Your task to perform on an android device: Open calendar and show me the first week of next month Image 0: 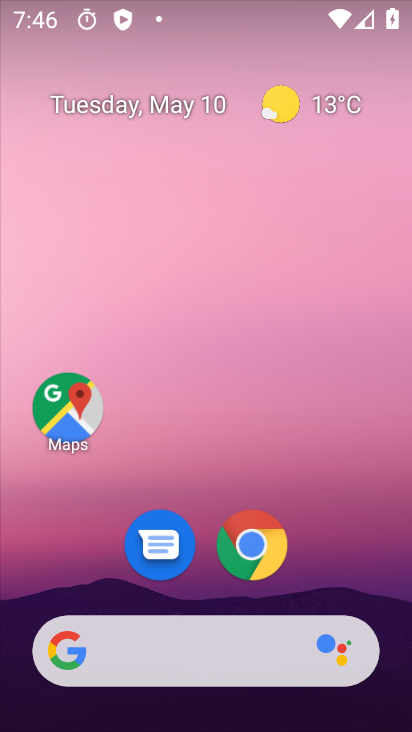
Step 0: press home button
Your task to perform on an android device: Open calendar and show me the first week of next month Image 1: 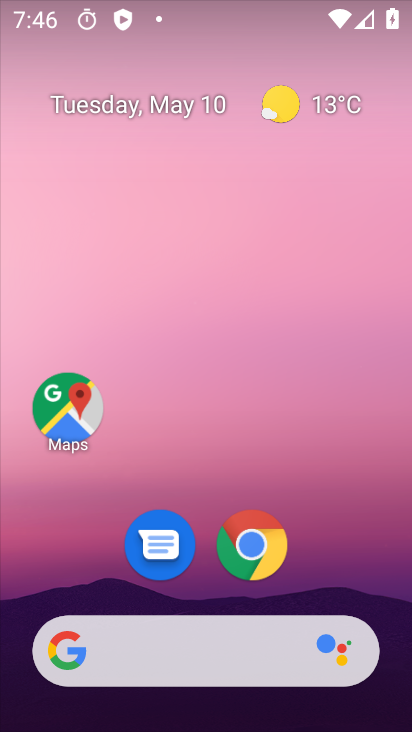
Step 1: drag from (211, 592) to (261, 79)
Your task to perform on an android device: Open calendar and show me the first week of next month Image 2: 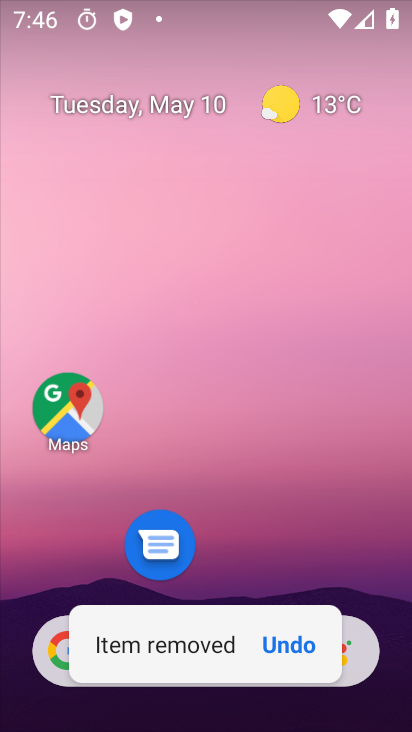
Step 2: click (285, 645)
Your task to perform on an android device: Open calendar and show me the first week of next month Image 3: 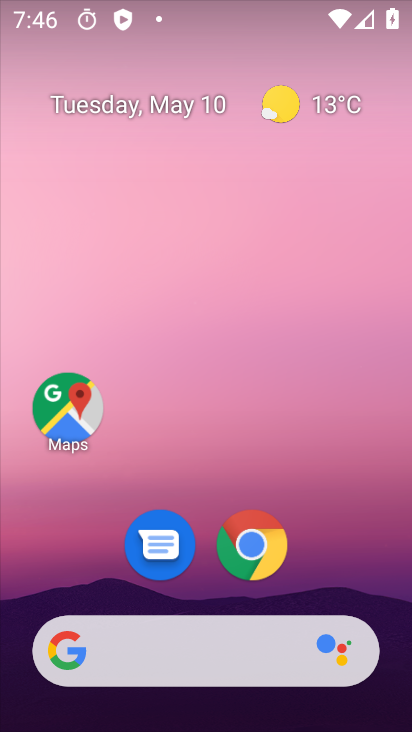
Step 3: drag from (320, 580) to (338, 78)
Your task to perform on an android device: Open calendar and show me the first week of next month Image 4: 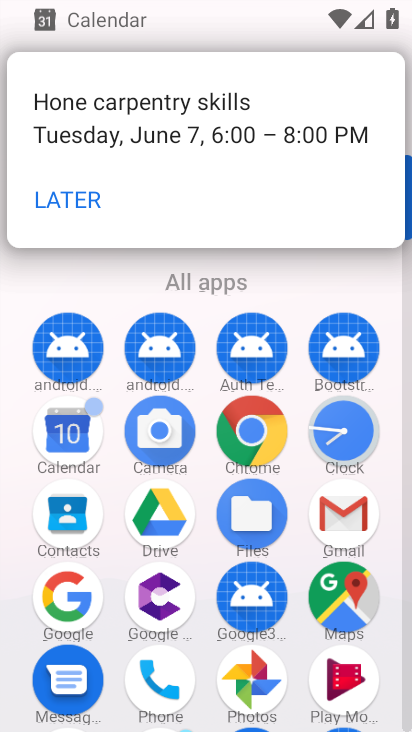
Step 4: click (81, 183)
Your task to perform on an android device: Open calendar and show me the first week of next month Image 5: 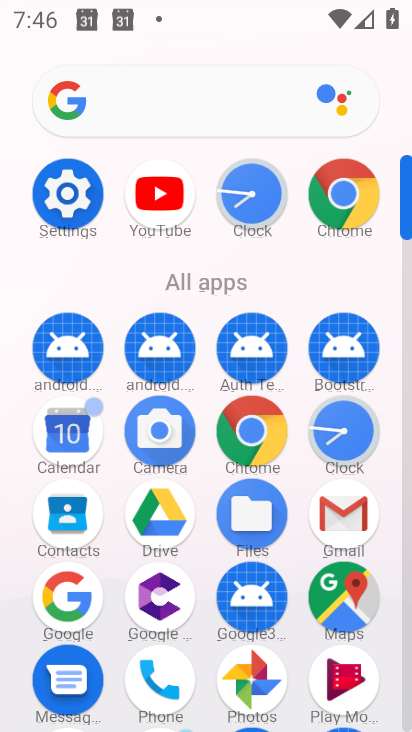
Step 5: click (67, 433)
Your task to perform on an android device: Open calendar and show me the first week of next month Image 6: 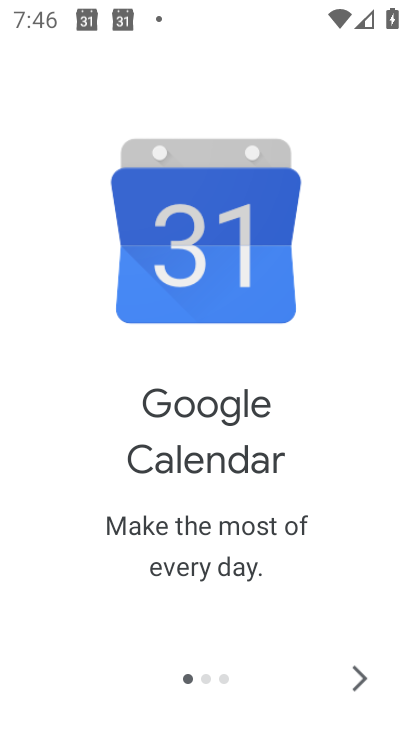
Step 6: click (352, 670)
Your task to perform on an android device: Open calendar and show me the first week of next month Image 7: 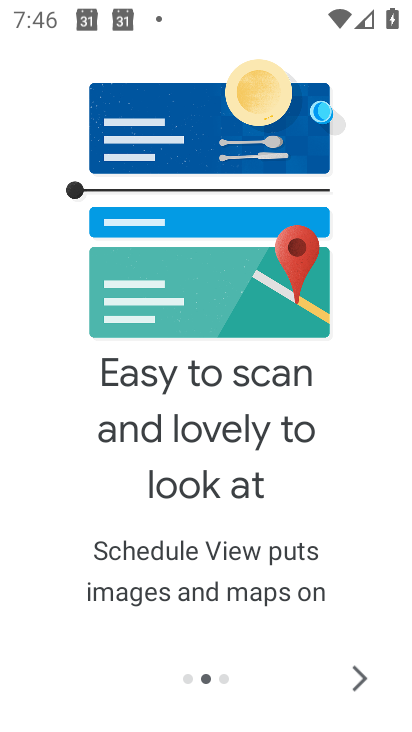
Step 7: click (352, 670)
Your task to perform on an android device: Open calendar and show me the first week of next month Image 8: 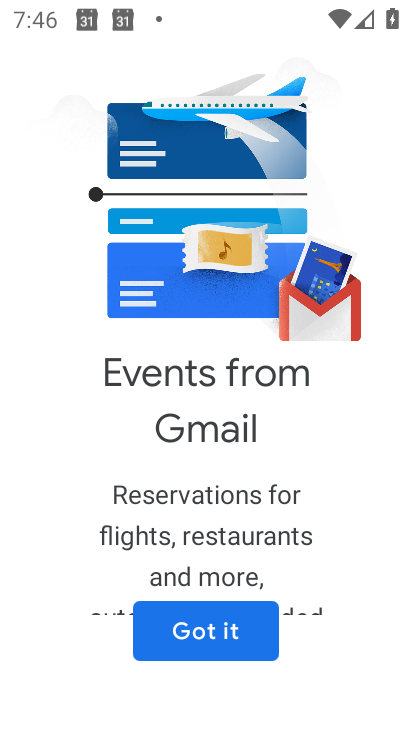
Step 8: click (215, 636)
Your task to perform on an android device: Open calendar and show me the first week of next month Image 9: 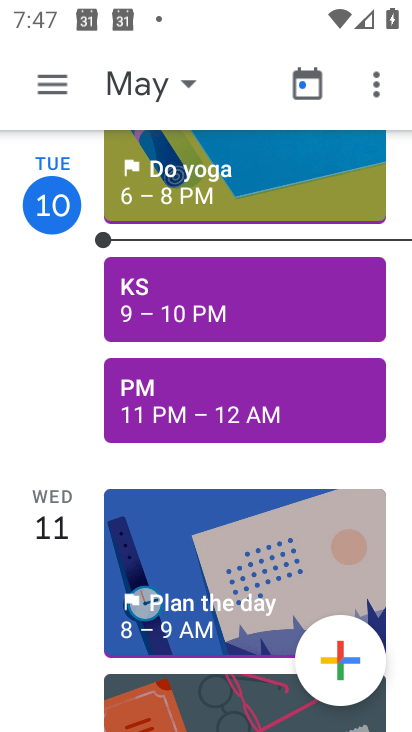
Step 9: click (58, 80)
Your task to perform on an android device: Open calendar and show me the first week of next month Image 10: 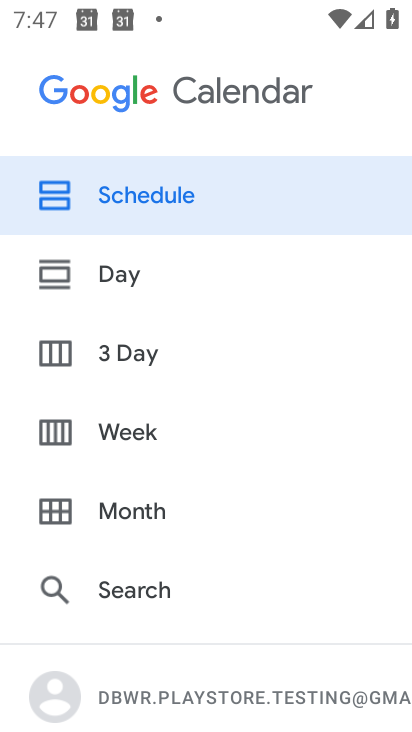
Step 10: click (105, 429)
Your task to perform on an android device: Open calendar and show me the first week of next month Image 11: 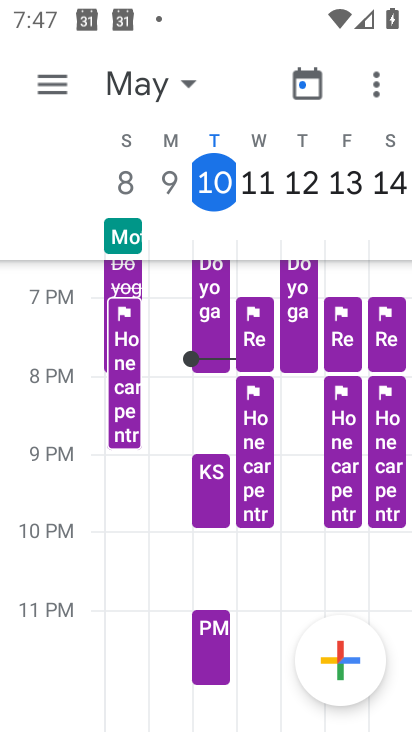
Step 11: drag from (379, 173) to (83, 165)
Your task to perform on an android device: Open calendar and show me the first week of next month Image 12: 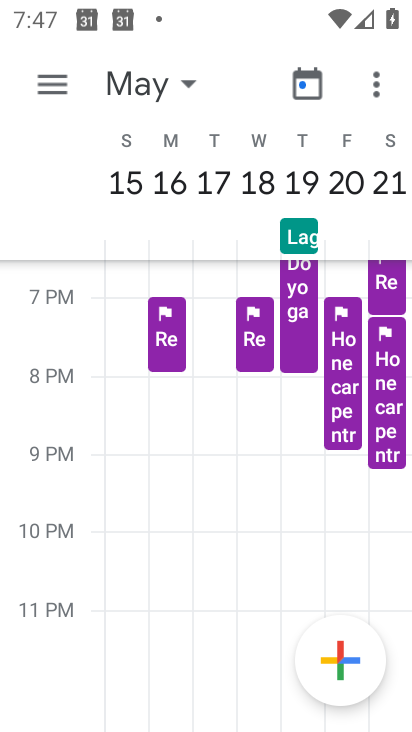
Step 12: drag from (394, 172) to (160, 181)
Your task to perform on an android device: Open calendar and show me the first week of next month Image 13: 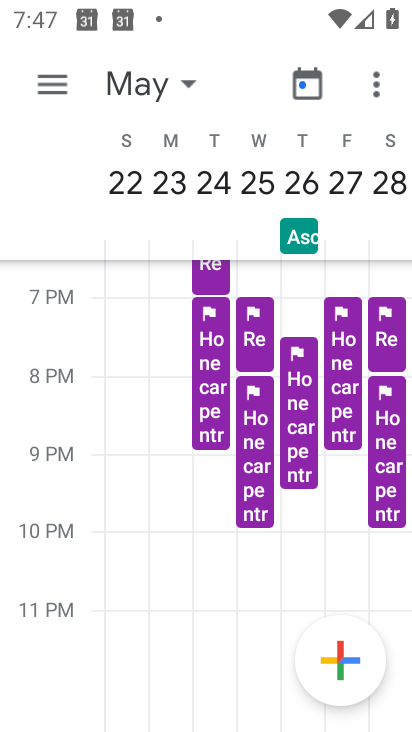
Step 13: drag from (384, 173) to (142, 182)
Your task to perform on an android device: Open calendar and show me the first week of next month Image 14: 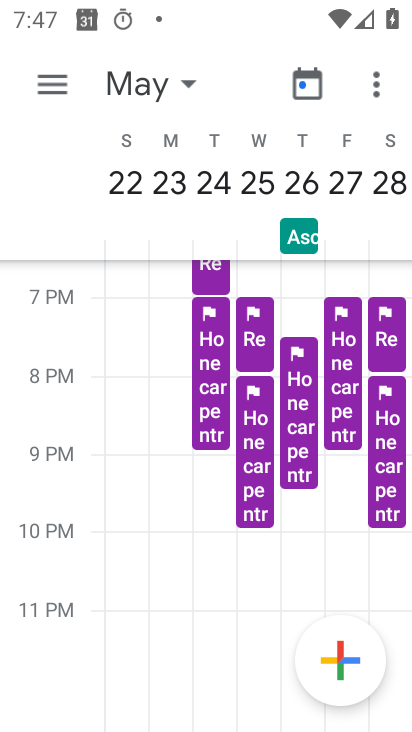
Step 14: drag from (387, 175) to (134, 165)
Your task to perform on an android device: Open calendar and show me the first week of next month Image 15: 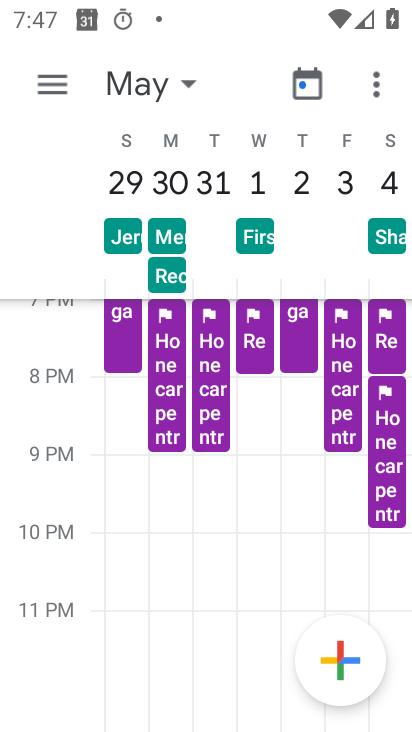
Step 15: drag from (372, 180) to (140, 164)
Your task to perform on an android device: Open calendar and show me the first week of next month Image 16: 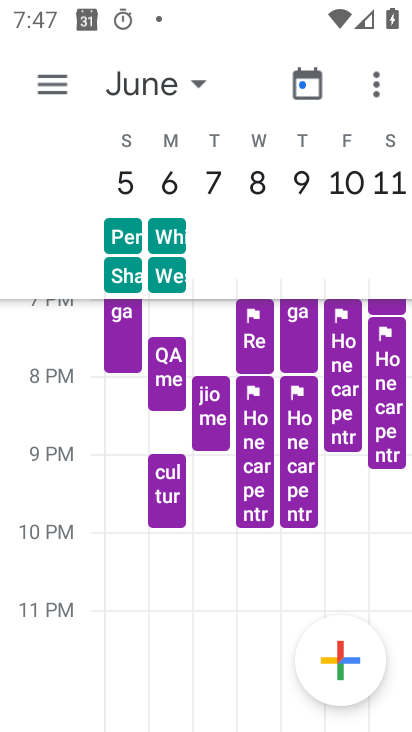
Step 16: click (126, 178)
Your task to perform on an android device: Open calendar and show me the first week of next month Image 17: 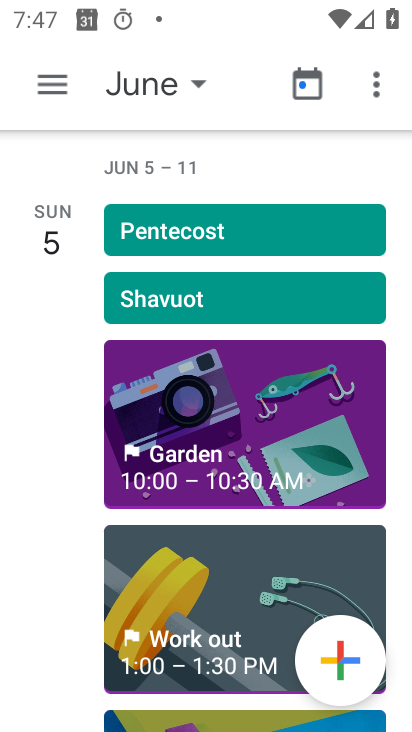
Step 17: task complete